Your task to perform on an android device: How do I get to the nearest JCPenney? Image 0: 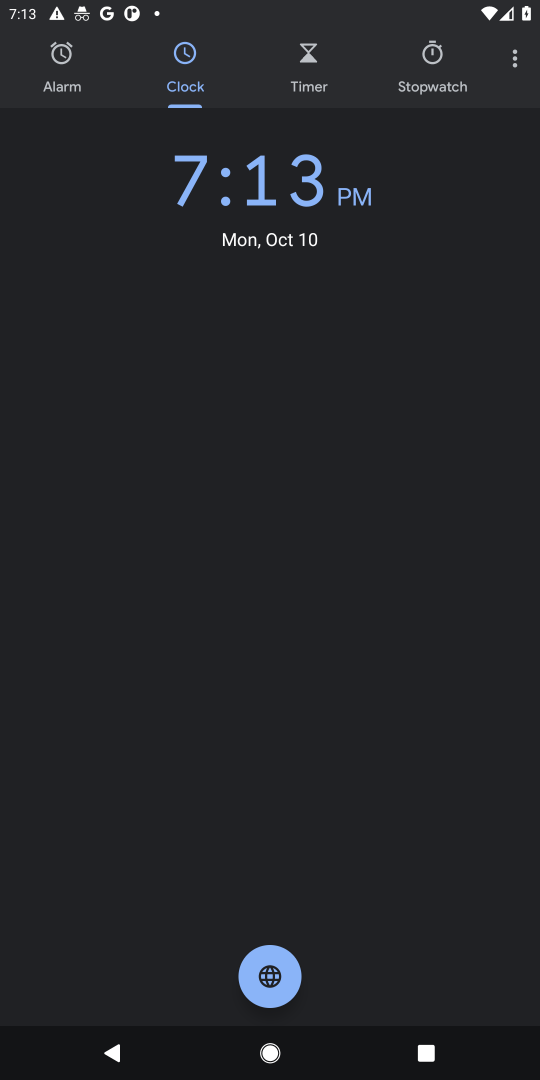
Step 0: press home button
Your task to perform on an android device: How do I get to the nearest JCPenney? Image 1: 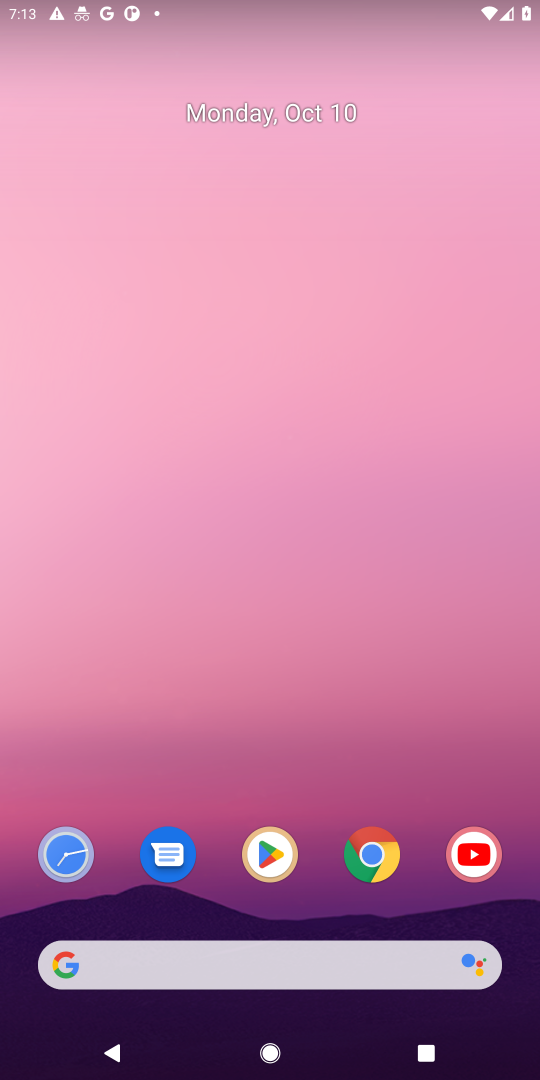
Step 1: click (370, 854)
Your task to perform on an android device: How do I get to the nearest JCPenney? Image 2: 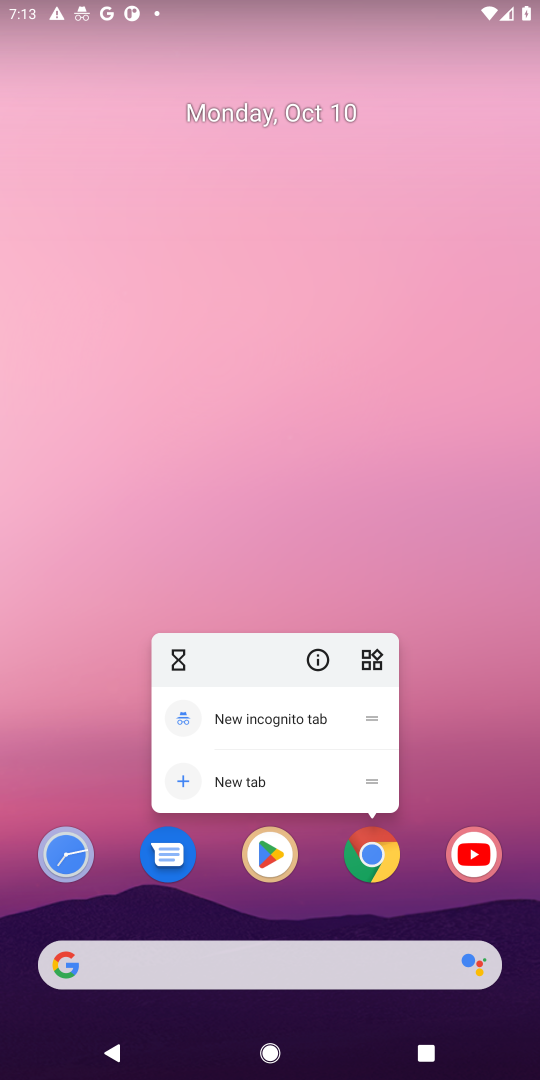
Step 2: click (370, 854)
Your task to perform on an android device: How do I get to the nearest JCPenney? Image 3: 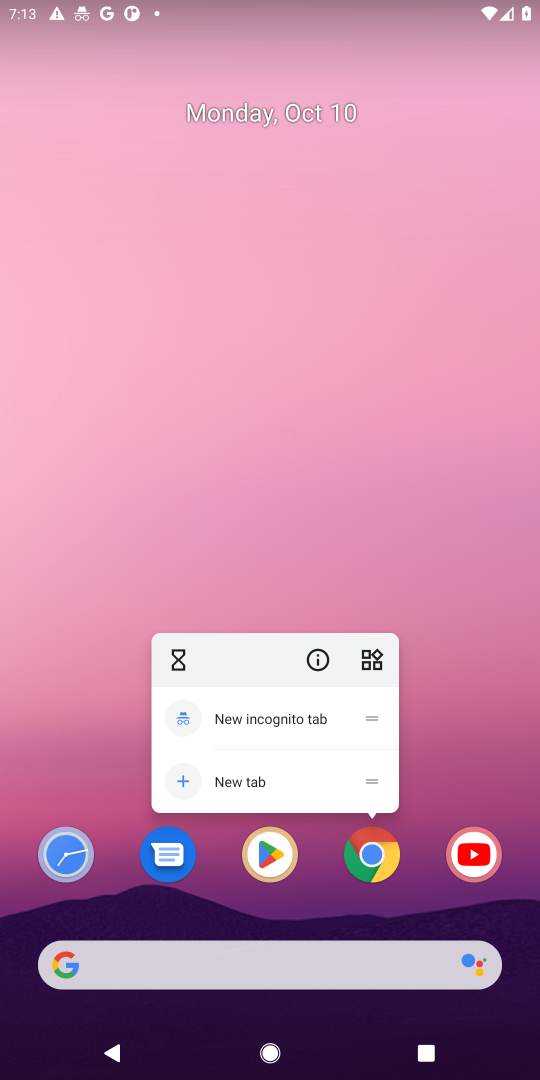
Step 3: click (368, 862)
Your task to perform on an android device: How do I get to the nearest JCPenney? Image 4: 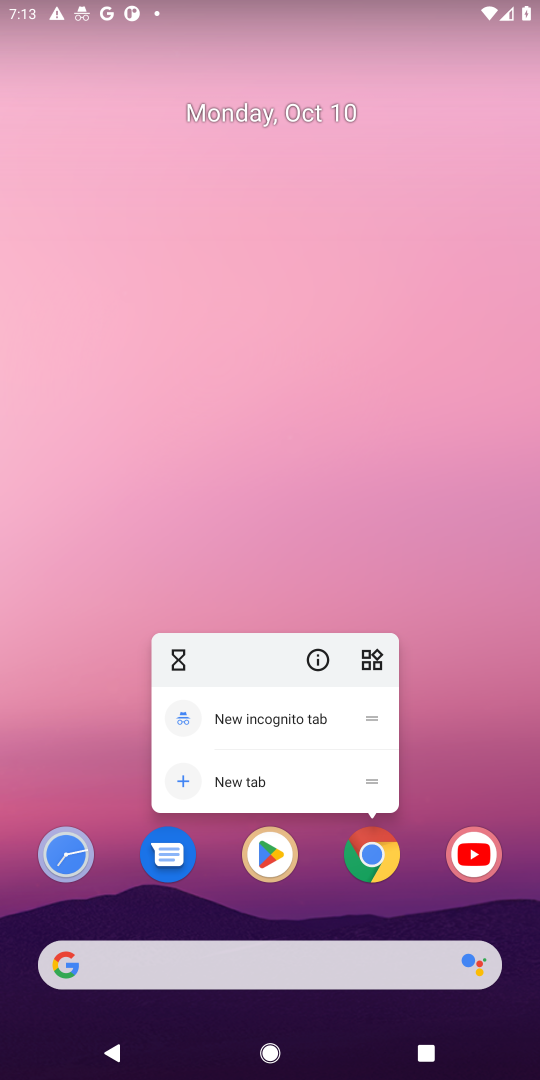
Step 4: click (368, 862)
Your task to perform on an android device: How do I get to the nearest JCPenney? Image 5: 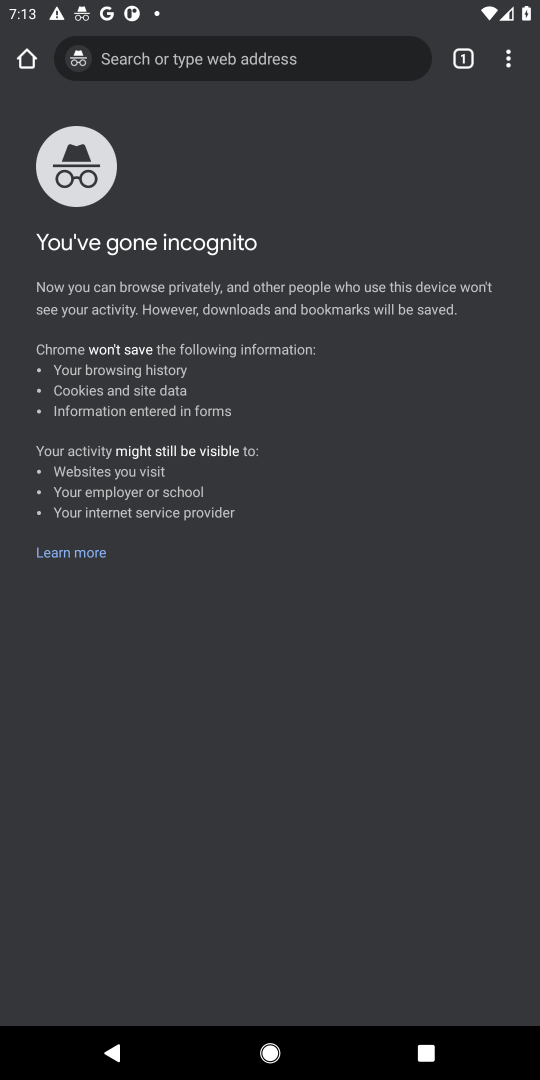
Step 5: drag from (503, 57) to (338, 117)
Your task to perform on an android device: How do I get to the nearest JCPenney? Image 6: 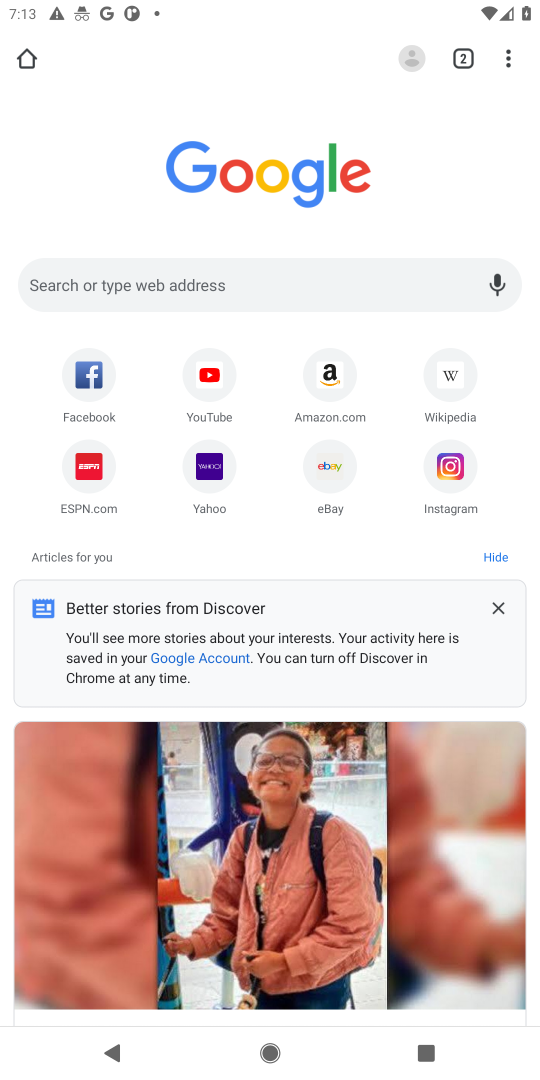
Step 6: click (187, 276)
Your task to perform on an android device: How do I get to the nearest JCPenney? Image 7: 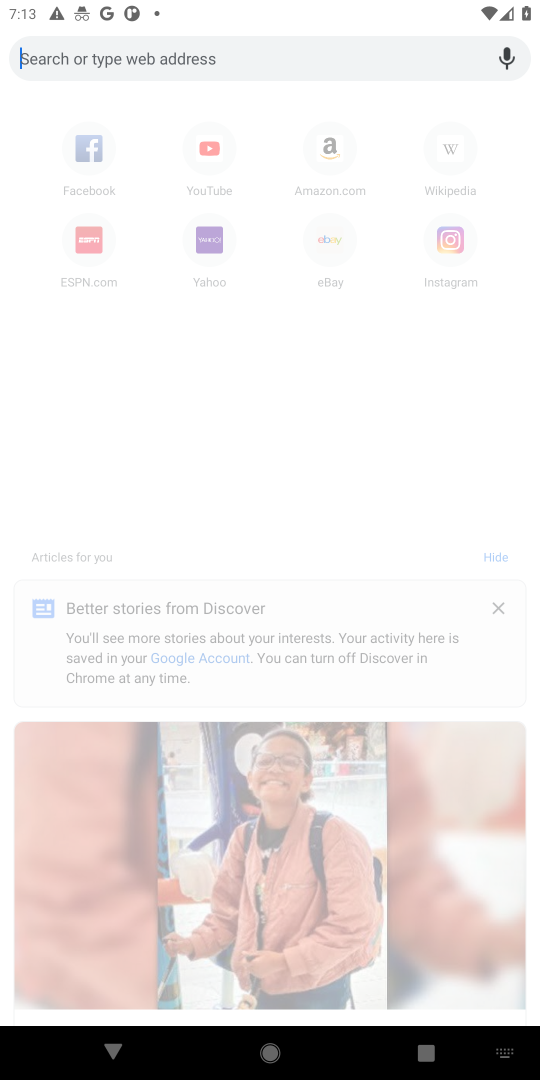
Step 7: type "How do I get to the nearest JCPenney"
Your task to perform on an android device: How do I get to the nearest JCPenney? Image 8: 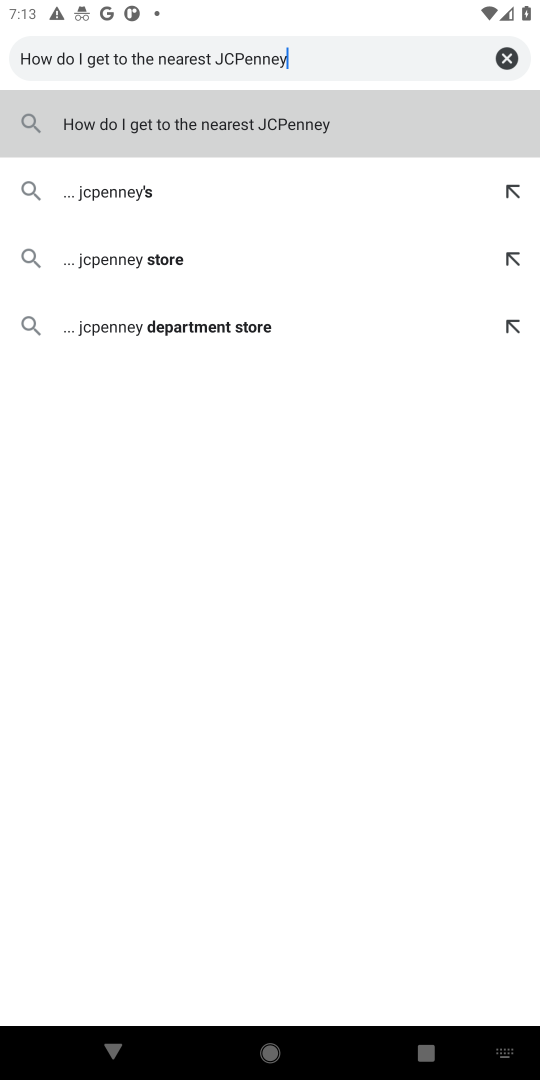
Step 8: click (196, 120)
Your task to perform on an android device: How do I get to the nearest JCPenney? Image 9: 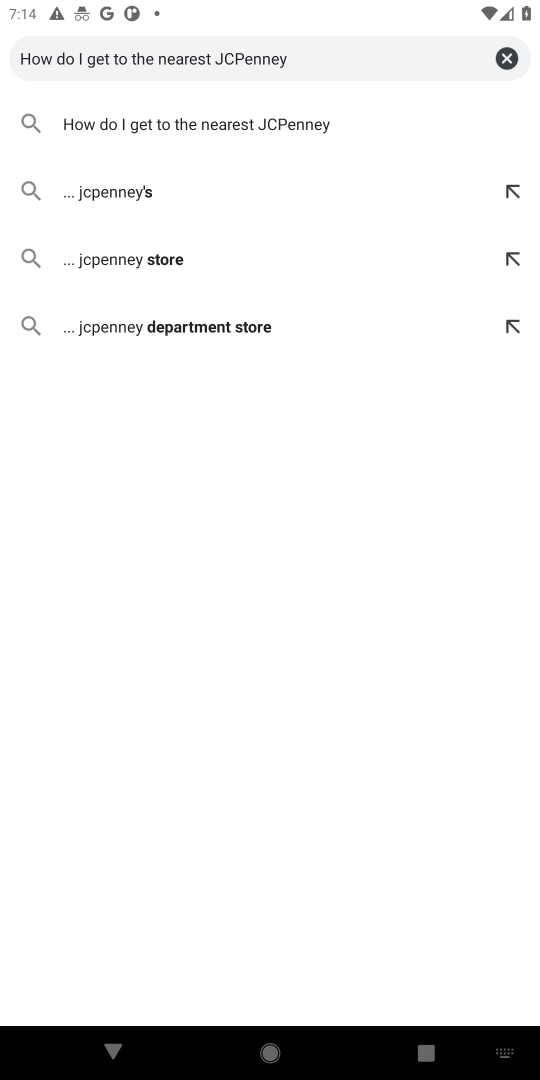
Step 9: click (288, 118)
Your task to perform on an android device: How do I get to the nearest JCPenney? Image 10: 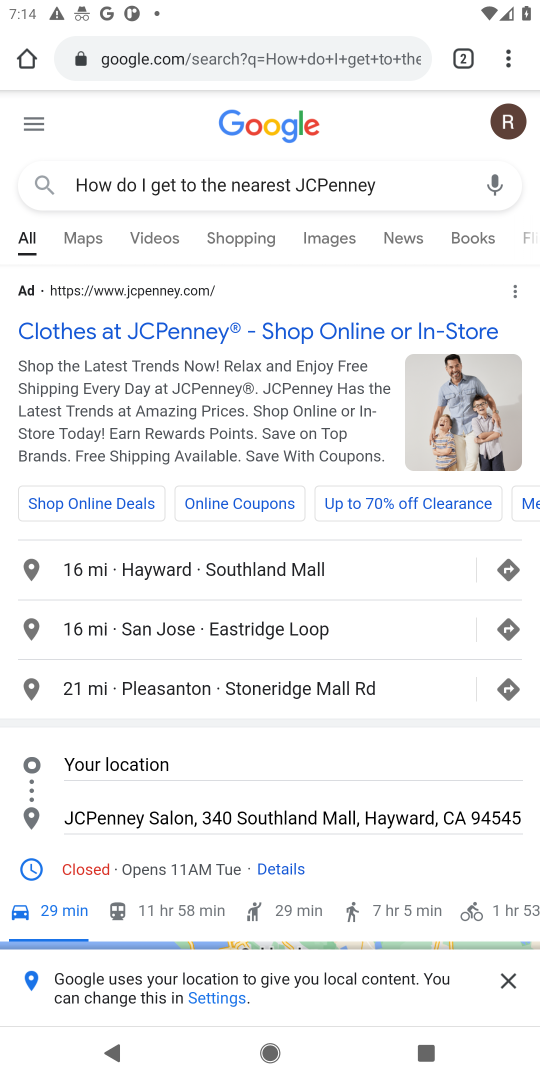
Step 10: task complete